Your task to perform on an android device: open a new tab in the chrome app Image 0: 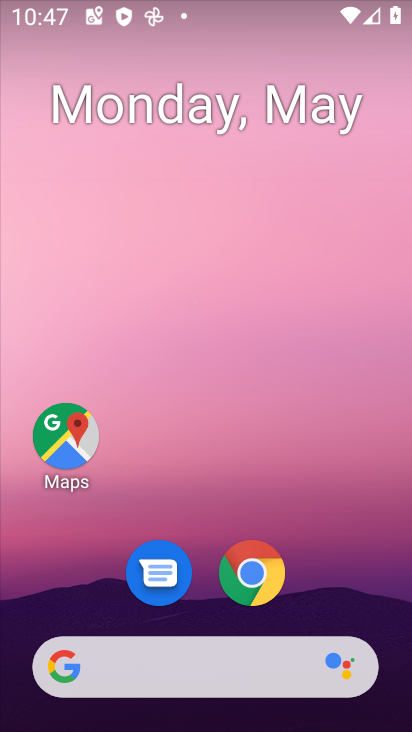
Step 0: click (244, 586)
Your task to perform on an android device: open a new tab in the chrome app Image 1: 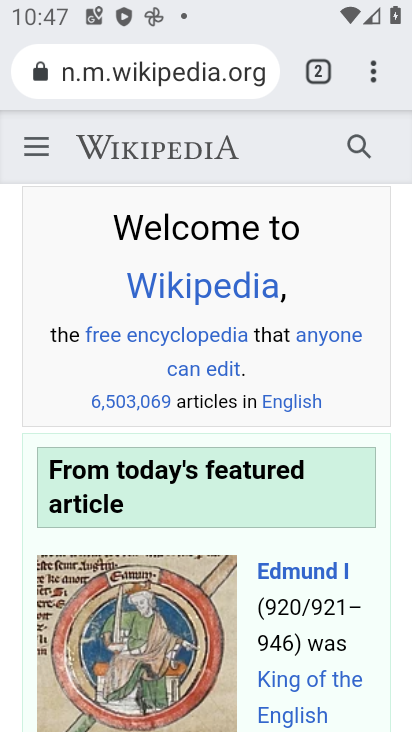
Step 1: click (371, 87)
Your task to perform on an android device: open a new tab in the chrome app Image 2: 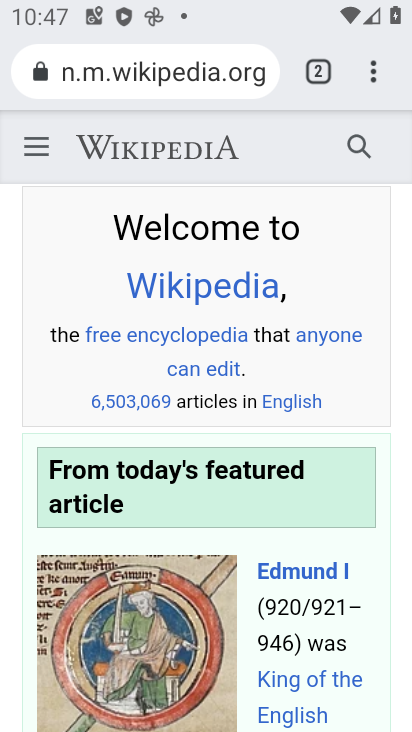
Step 2: click (376, 66)
Your task to perform on an android device: open a new tab in the chrome app Image 3: 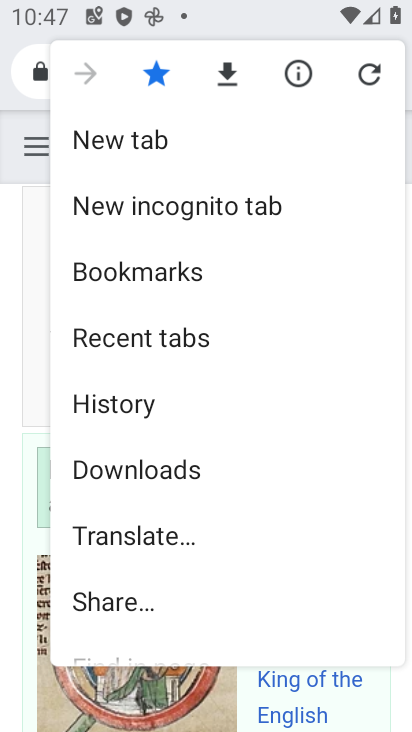
Step 3: click (173, 135)
Your task to perform on an android device: open a new tab in the chrome app Image 4: 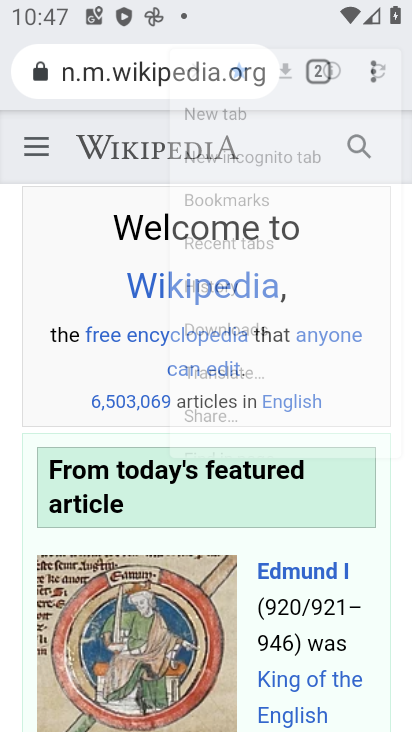
Step 4: task complete